Your task to perform on an android device: open app "NewsBreak: Local News & Alerts" Image 0: 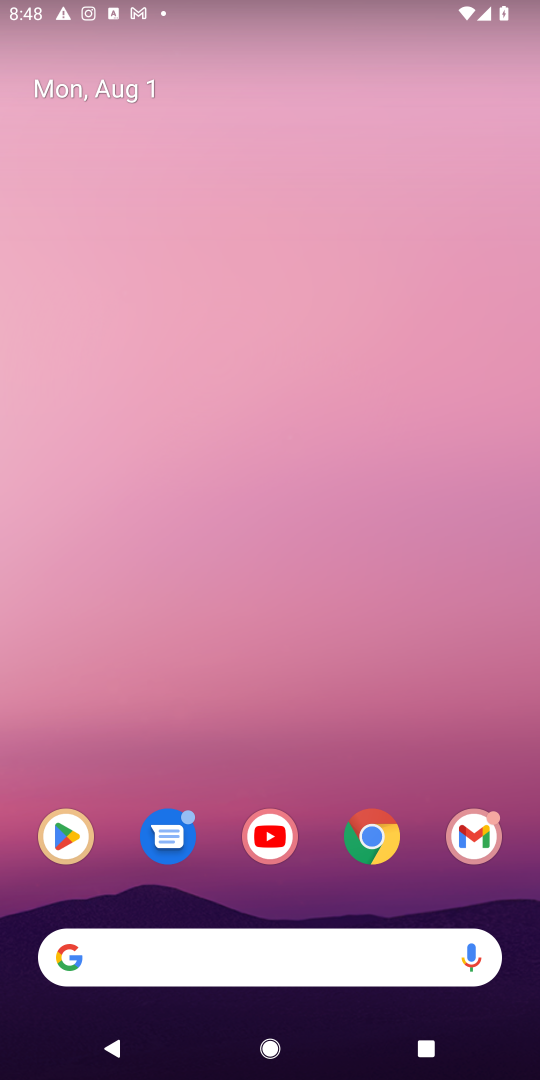
Step 0: press home button
Your task to perform on an android device: open app "NewsBreak: Local News & Alerts" Image 1: 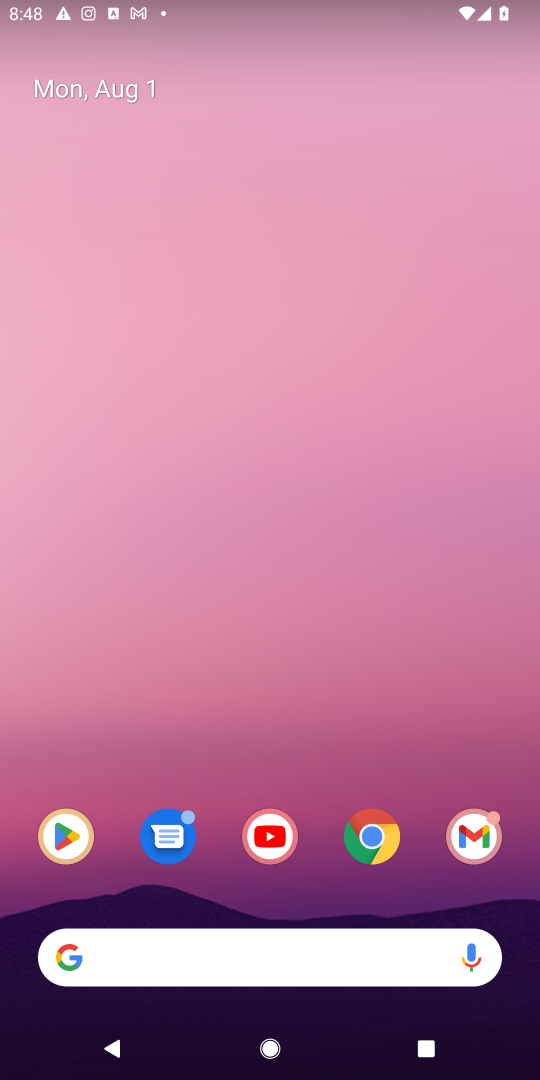
Step 1: click (60, 837)
Your task to perform on an android device: open app "NewsBreak: Local News & Alerts" Image 2: 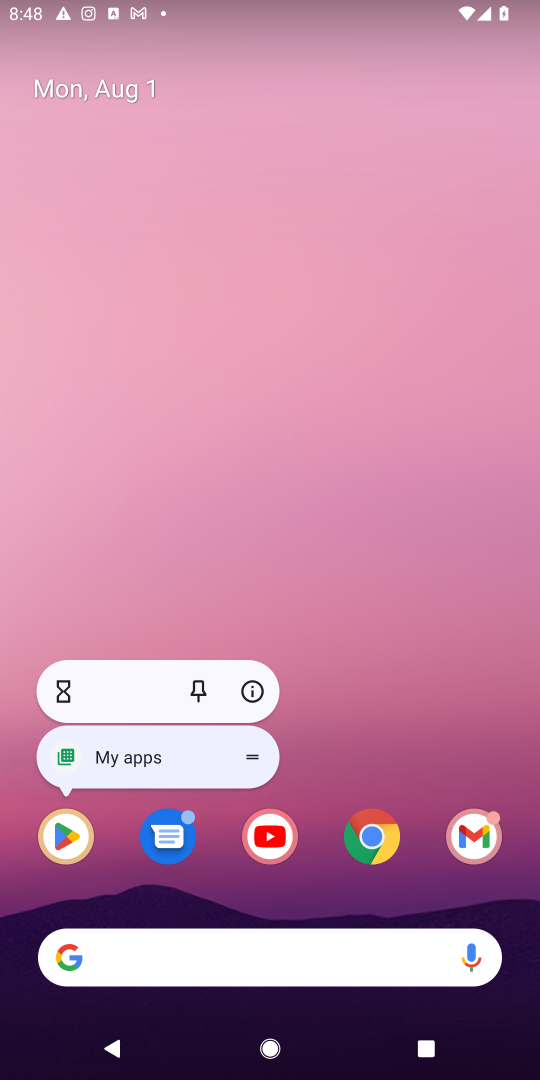
Step 2: click (62, 836)
Your task to perform on an android device: open app "NewsBreak: Local News & Alerts" Image 3: 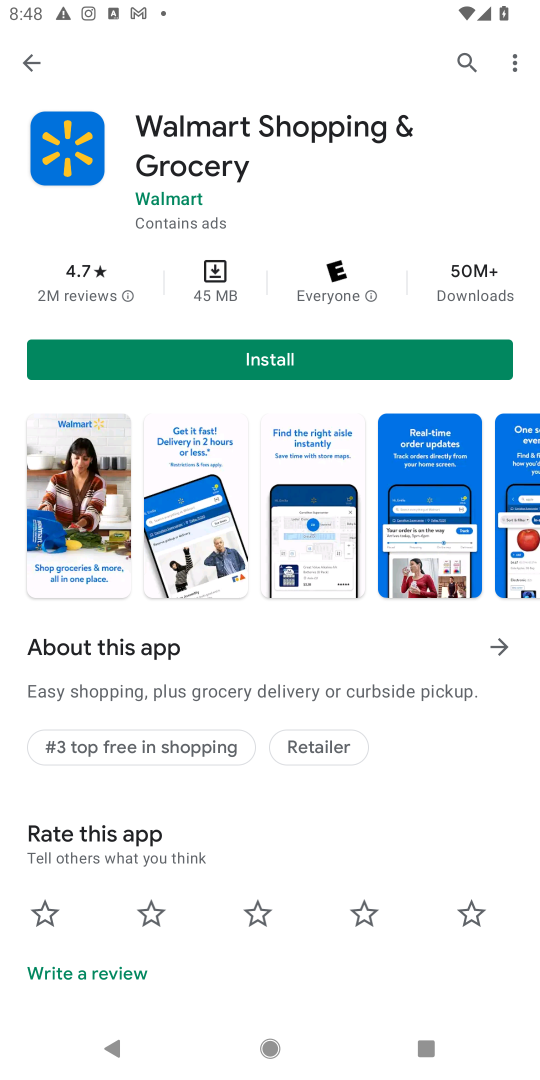
Step 3: click (459, 55)
Your task to perform on an android device: open app "NewsBreak: Local News & Alerts" Image 4: 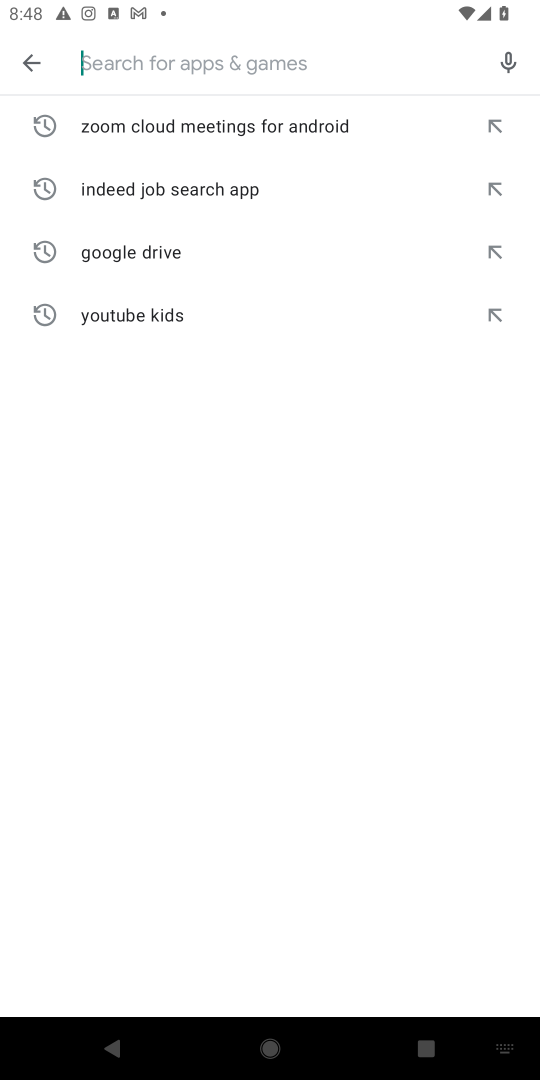
Step 4: type "NewsBreak: Local News & Alerts"
Your task to perform on an android device: open app "NewsBreak: Local News & Alerts" Image 5: 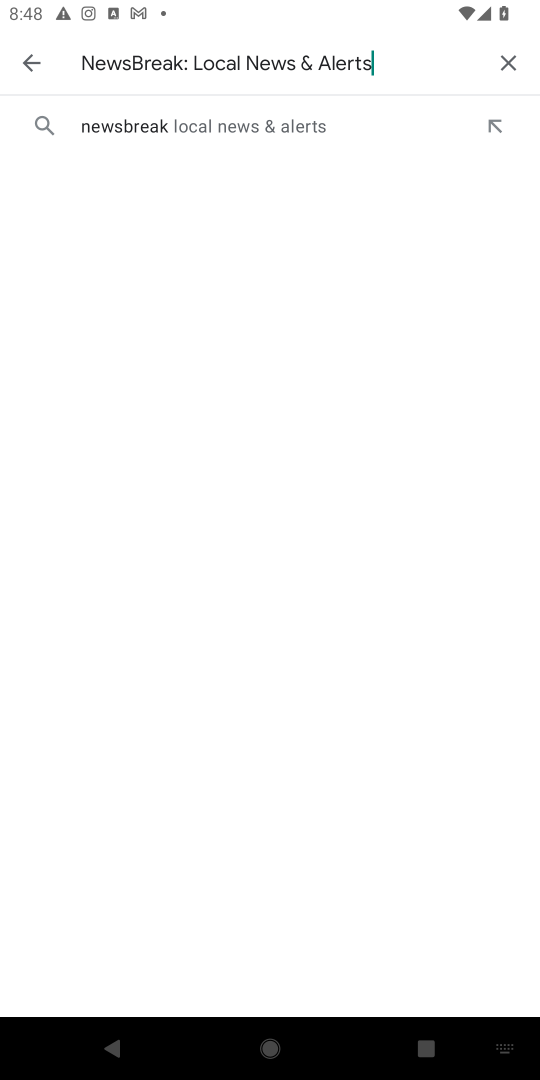
Step 5: click (293, 128)
Your task to perform on an android device: open app "NewsBreak: Local News & Alerts" Image 6: 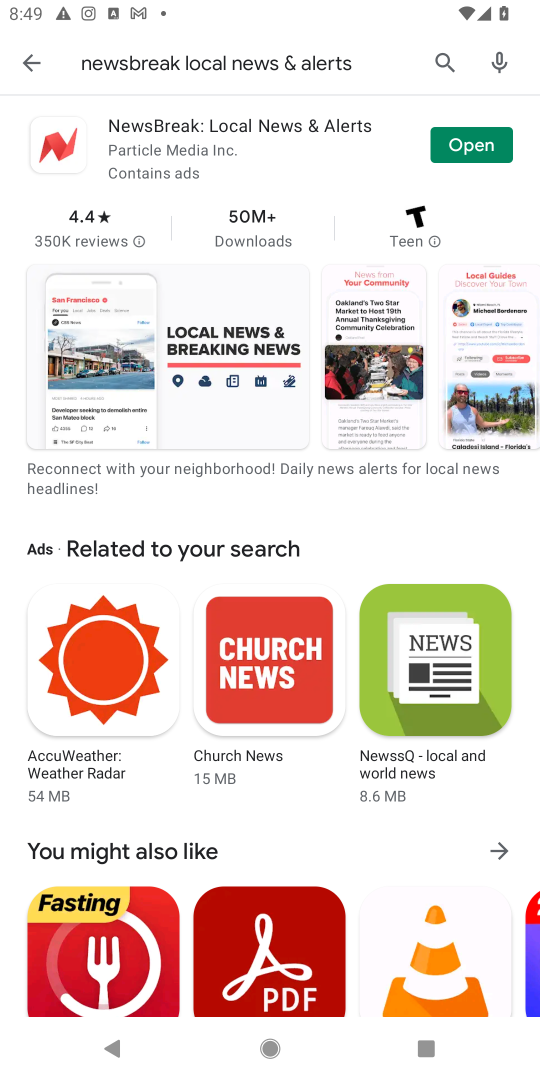
Step 6: click (470, 144)
Your task to perform on an android device: open app "NewsBreak: Local News & Alerts" Image 7: 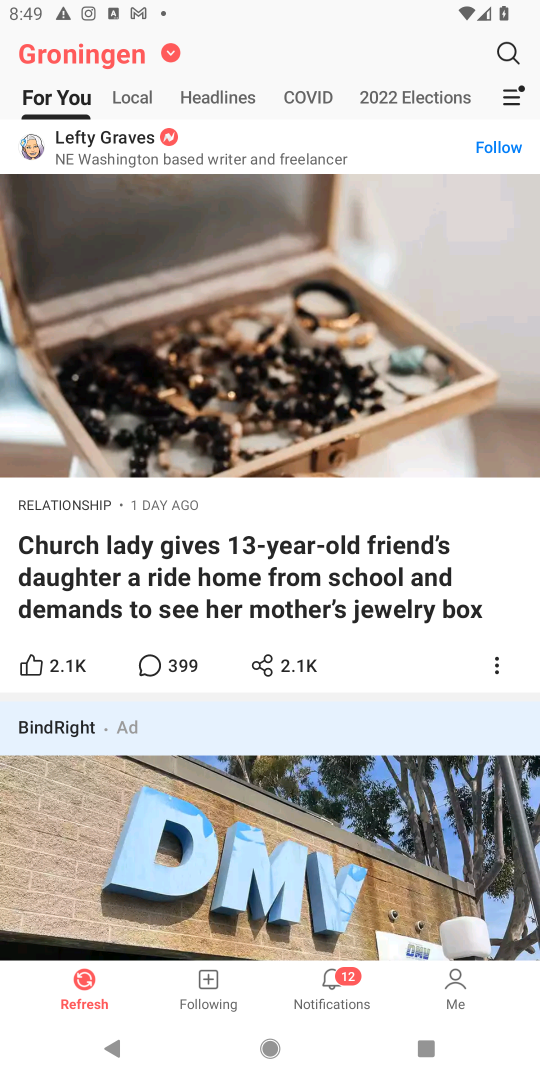
Step 7: task complete